Your task to perform on an android device: change your default location settings in chrome Image 0: 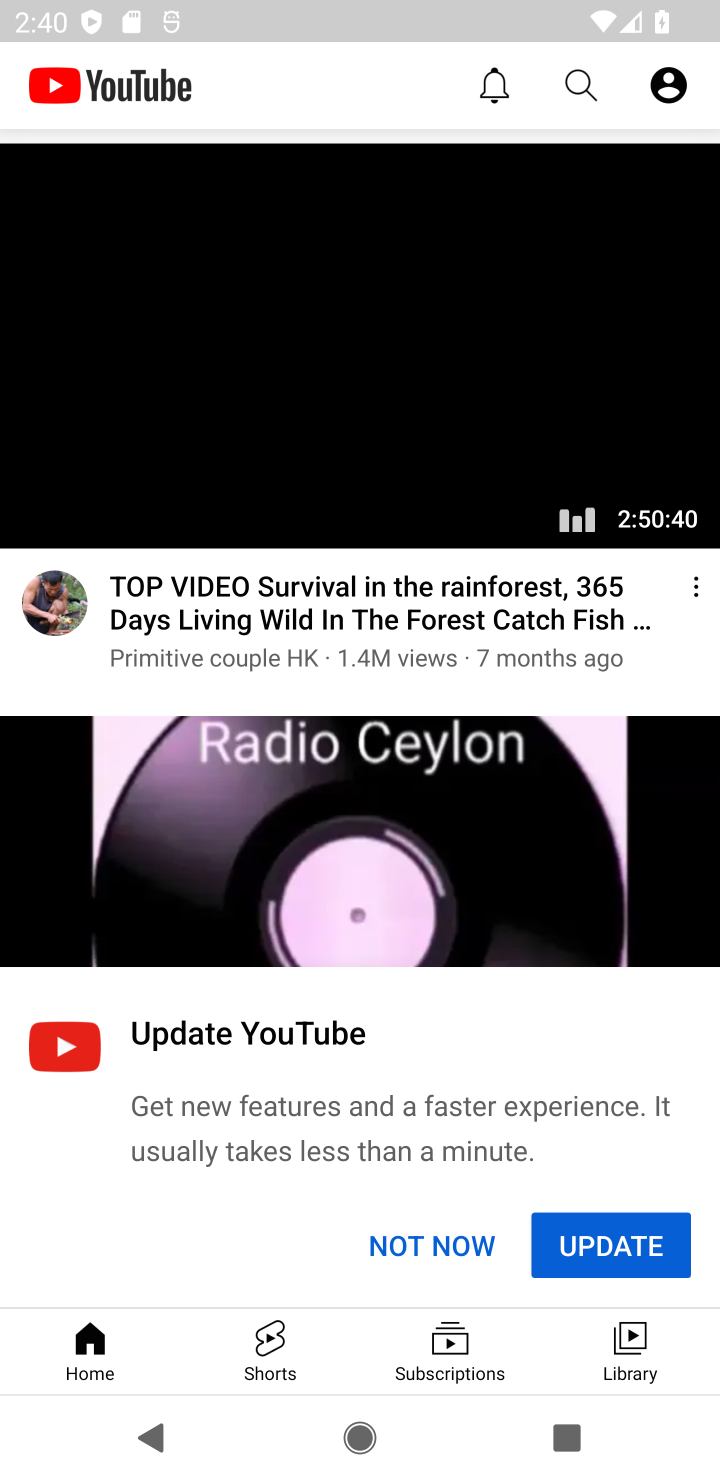
Step 0: press home button
Your task to perform on an android device: change your default location settings in chrome Image 1: 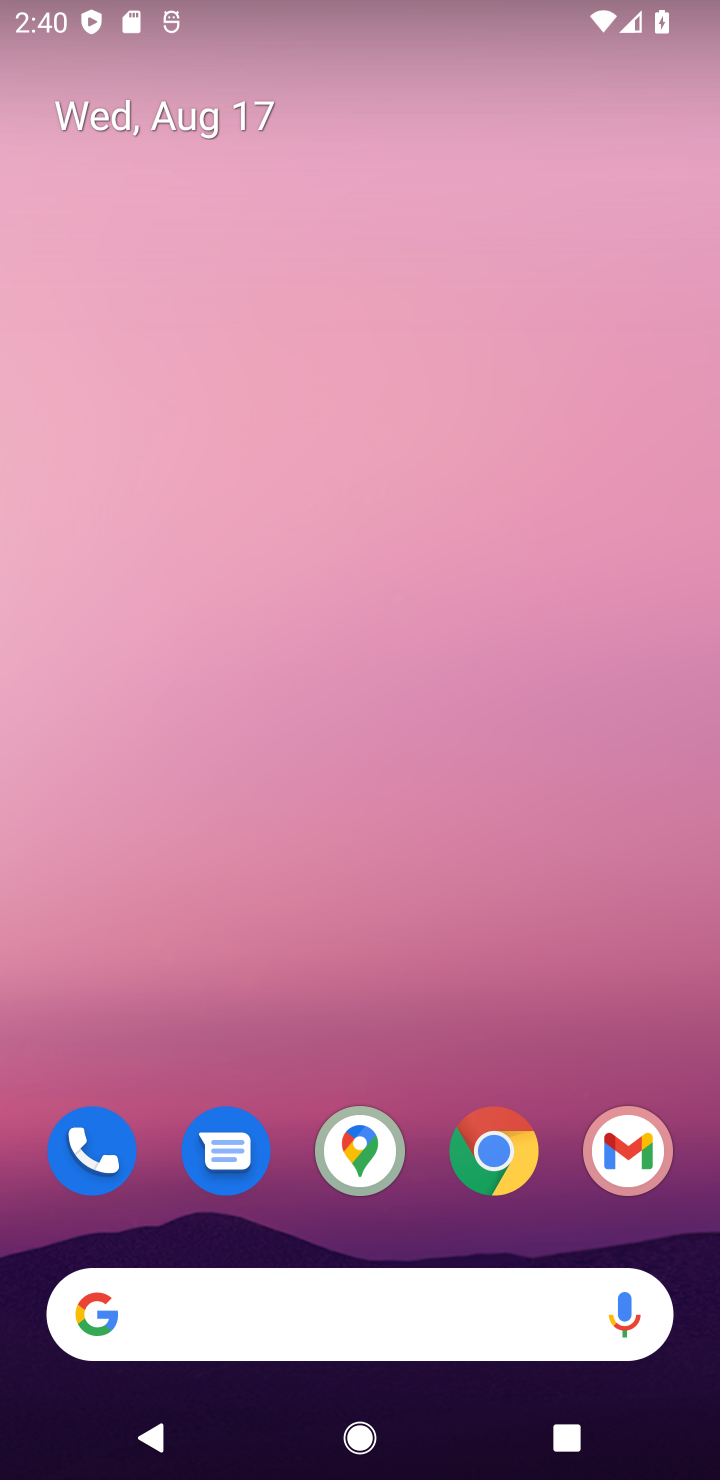
Step 1: drag from (384, 1150) to (408, 338)
Your task to perform on an android device: change your default location settings in chrome Image 2: 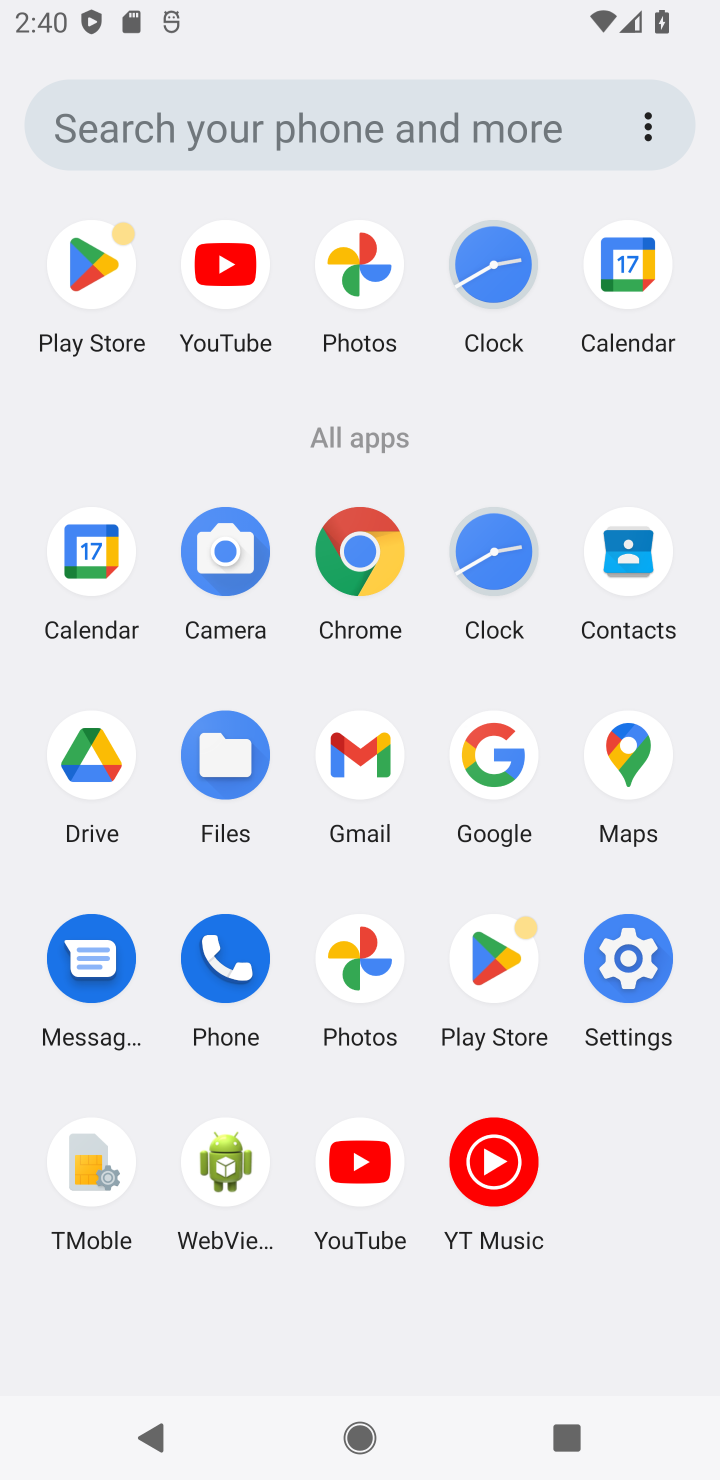
Step 2: click (345, 539)
Your task to perform on an android device: change your default location settings in chrome Image 3: 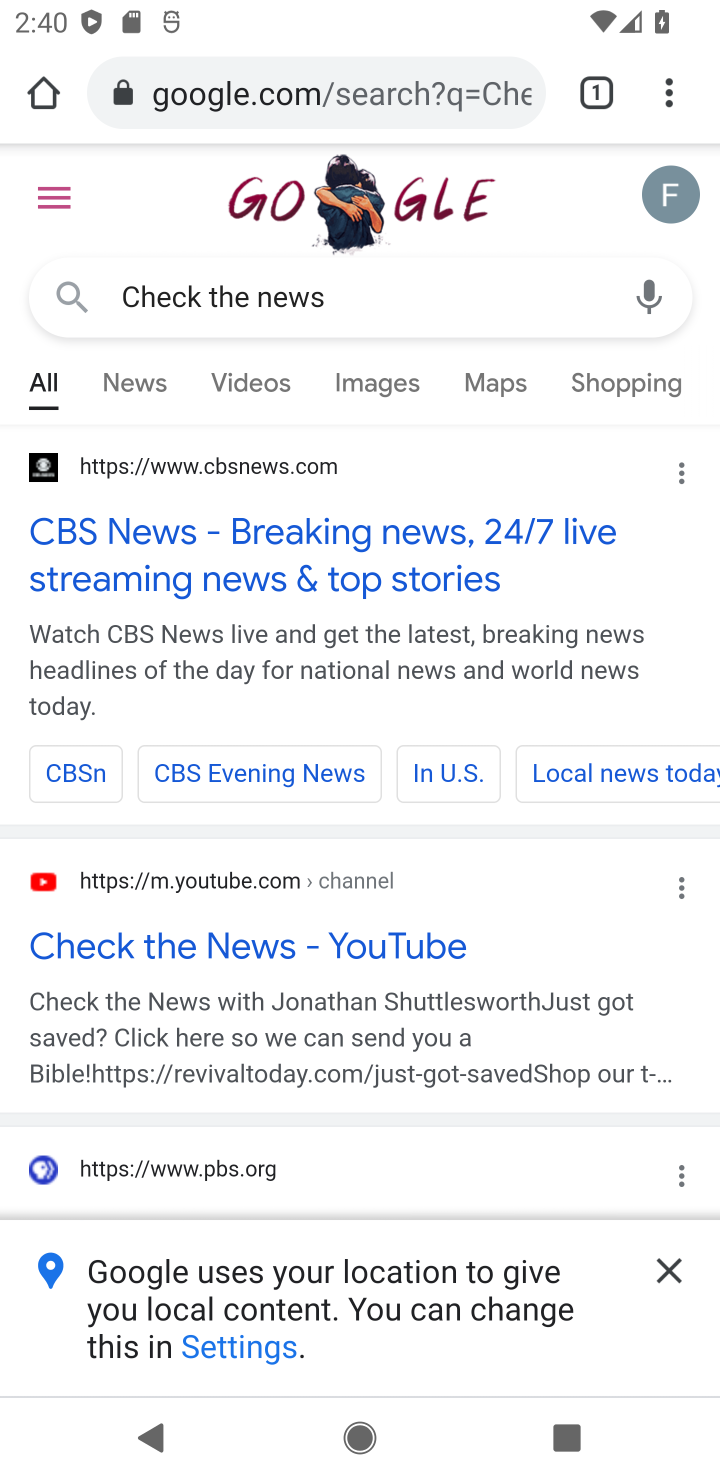
Step 3: click (689, 88)
Your task to perform on an android device: change your default location settings in chrome Image 4: 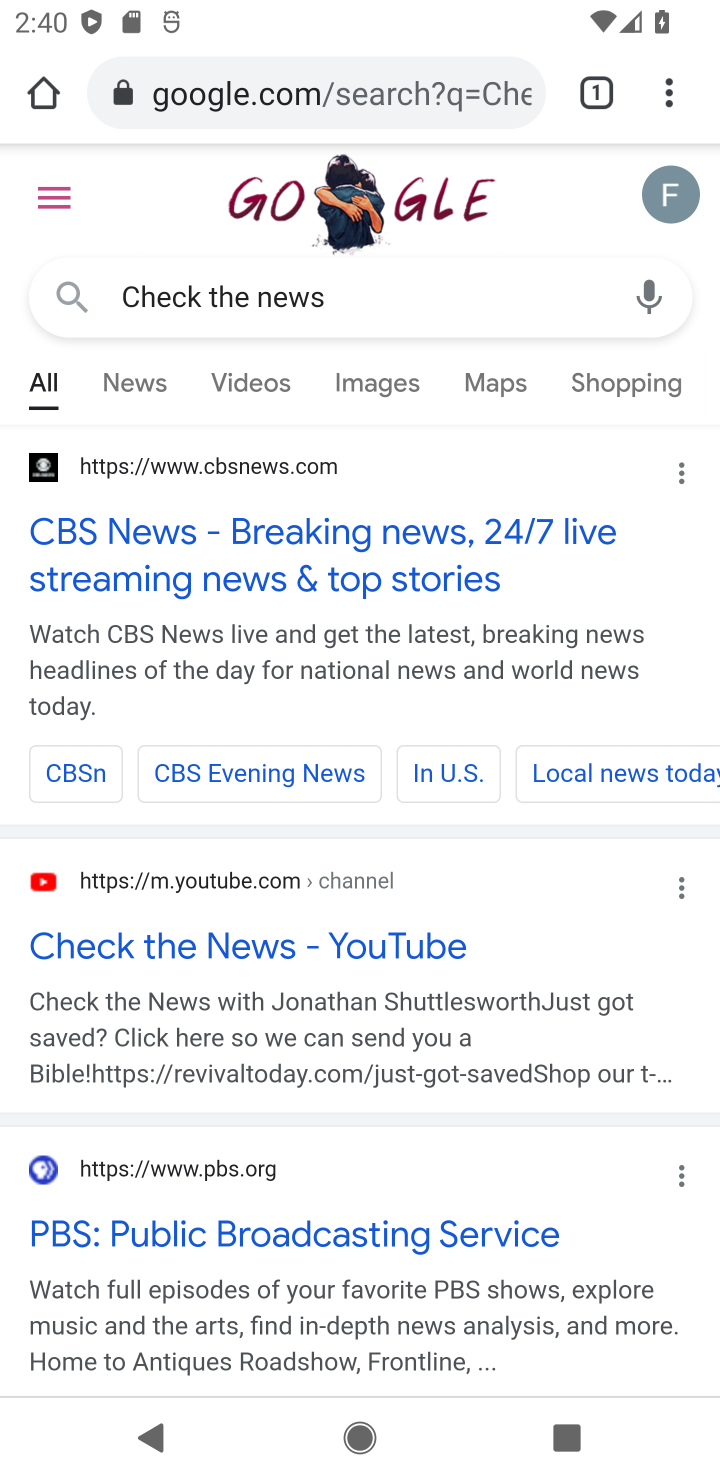
Step 4: click (657, 89)
Your task to perform on an android device: change your default location settings in chrome Image 5: 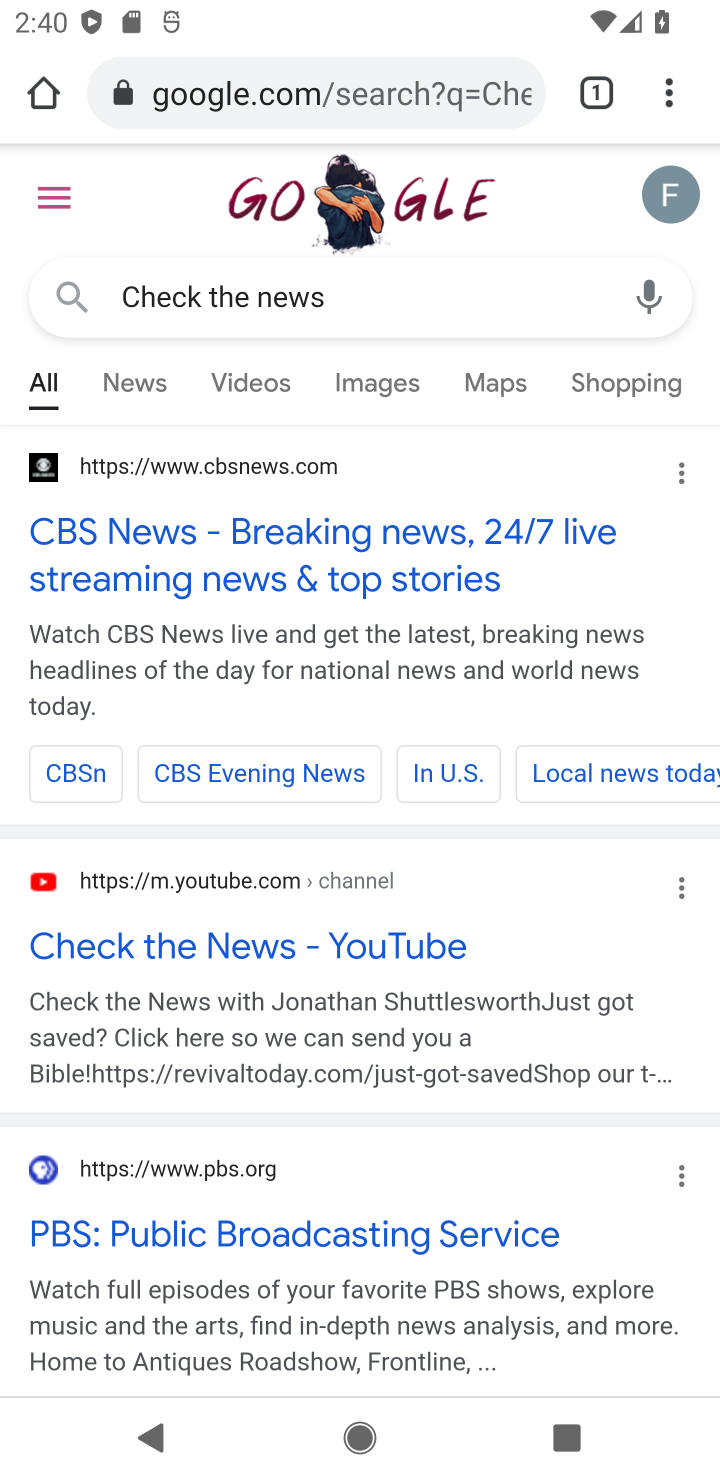
Step 5: click (657, 89)
Your task to perform on an android device: change your default location settings in chrome Image 6: 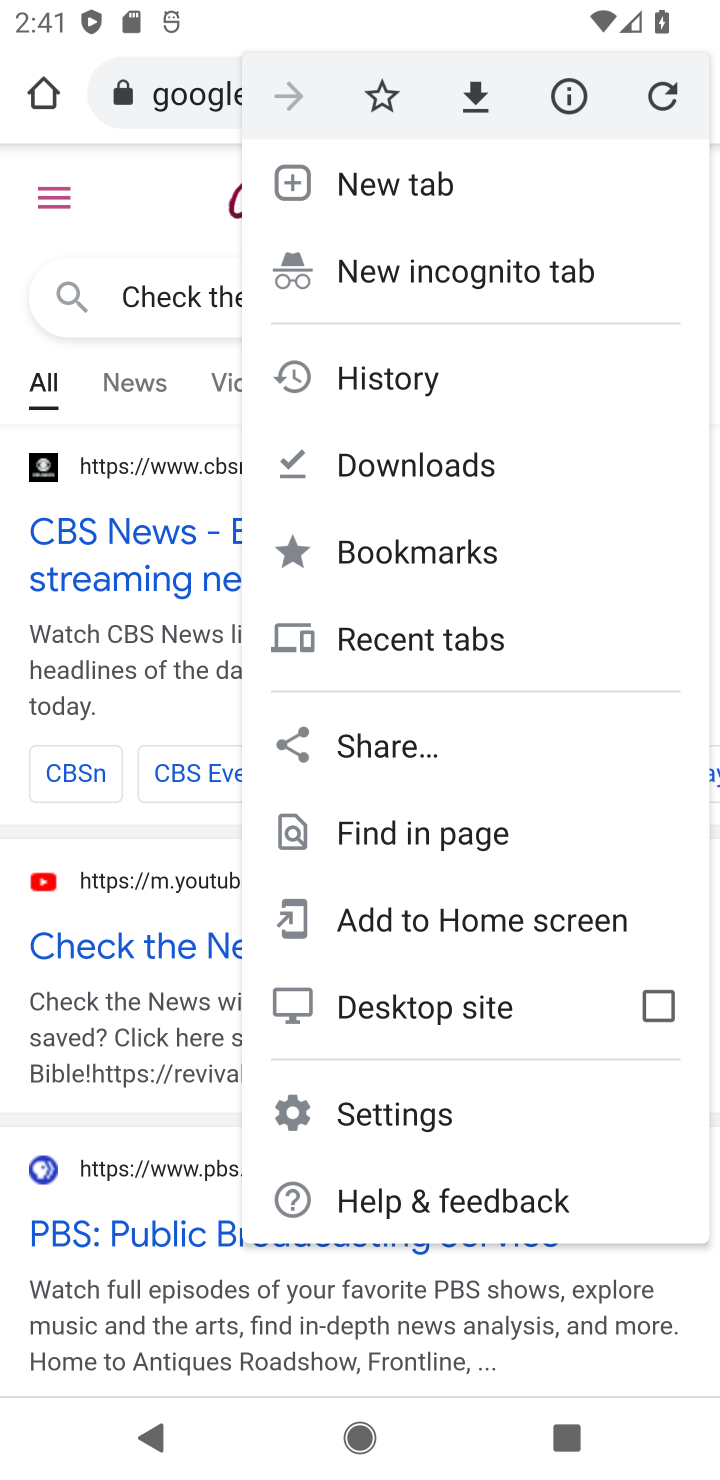
Step 6: click (419, 1104)
Your task to perform on an android device: change your default location settings in chrome Image 7: 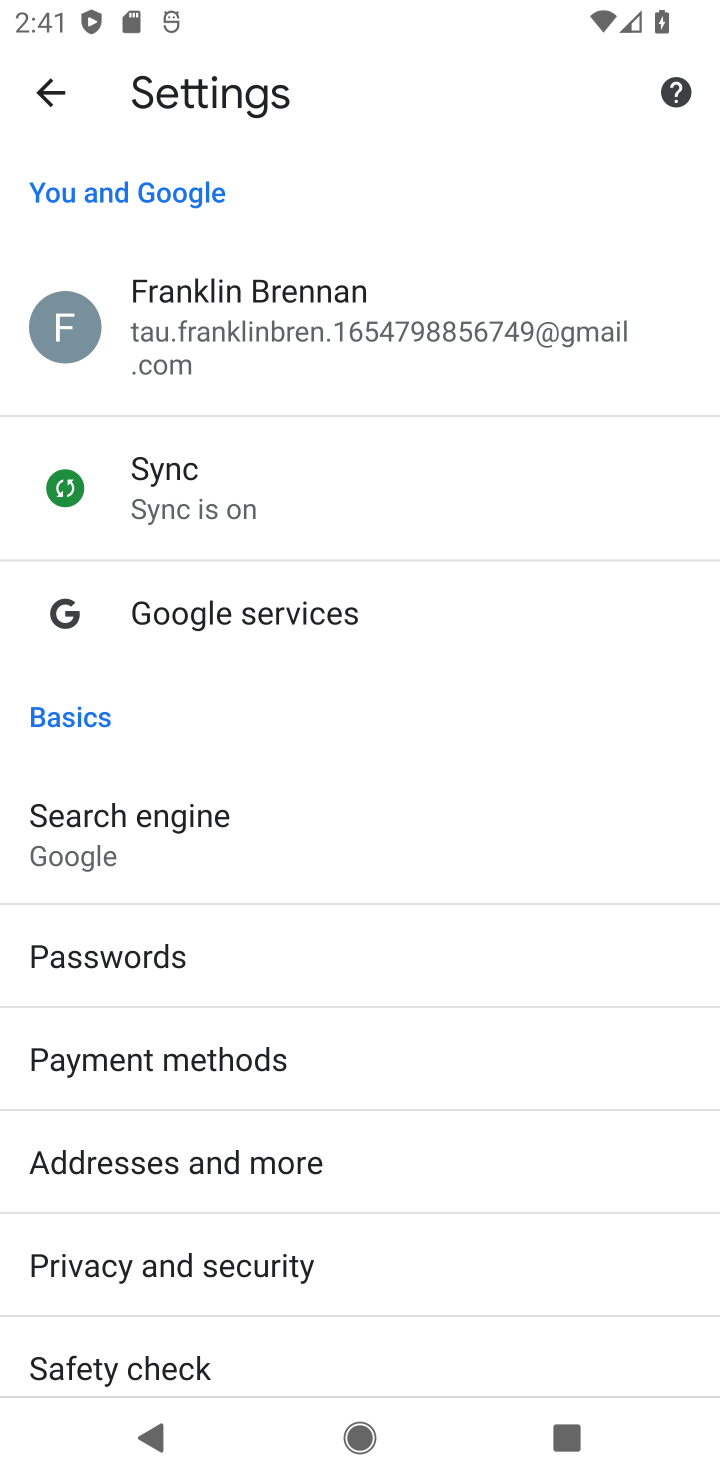
Step 7: drag from (254, 1316) to (398, 258)
Your task to perform on an android device: change your default location settings in chrome Image 8: 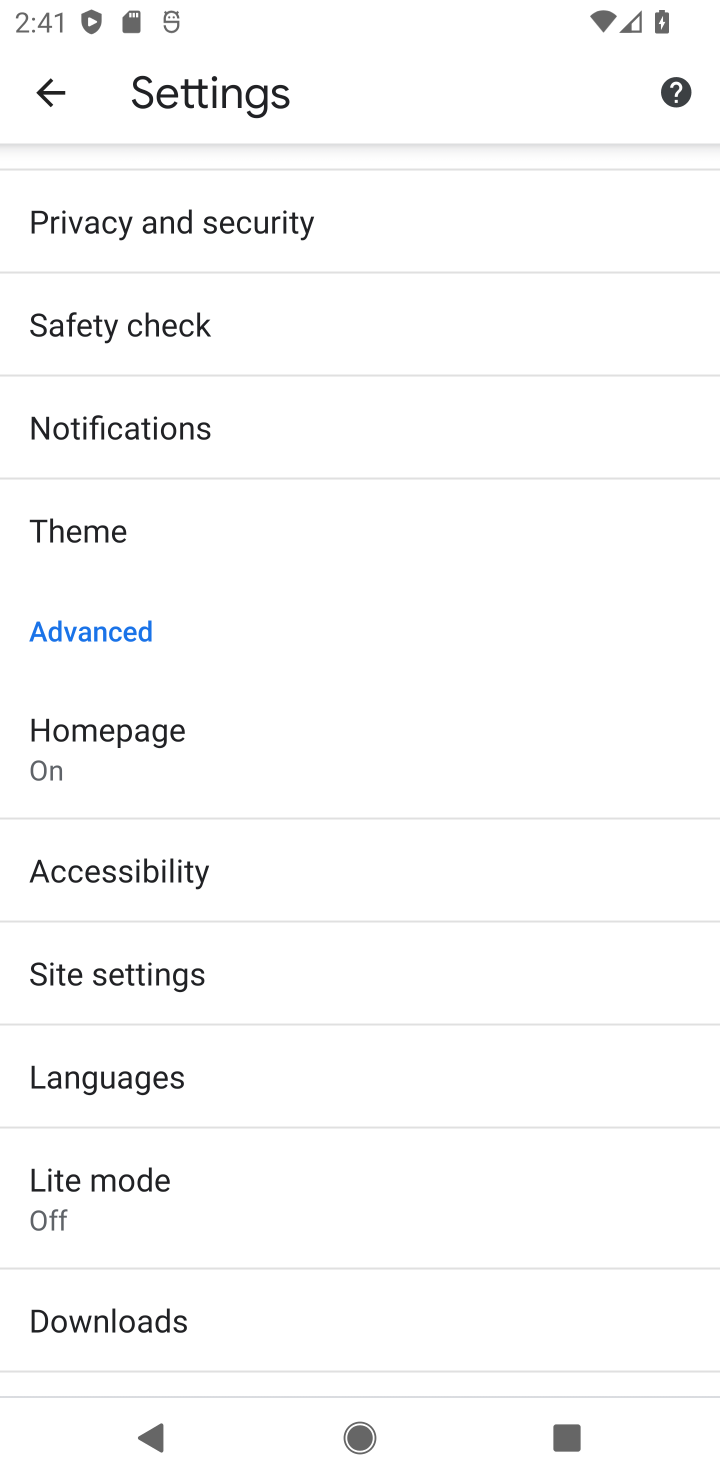
Step 8: click (186, 962)
Your task to perform on an android device: change your default location settings in chrome Image 9: 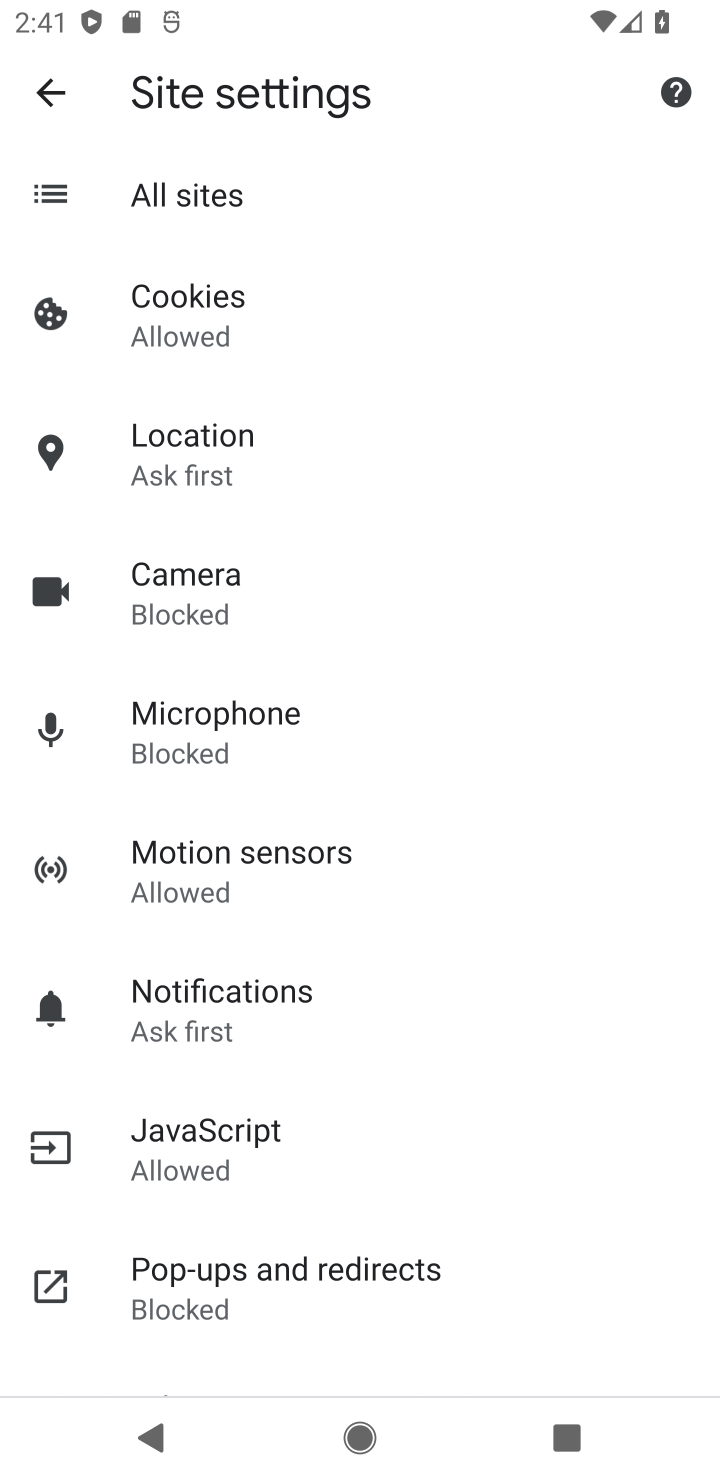
Step 9: click (175, 444)
Your task to perform on an android device: change your default location settings in chrome Image 10: 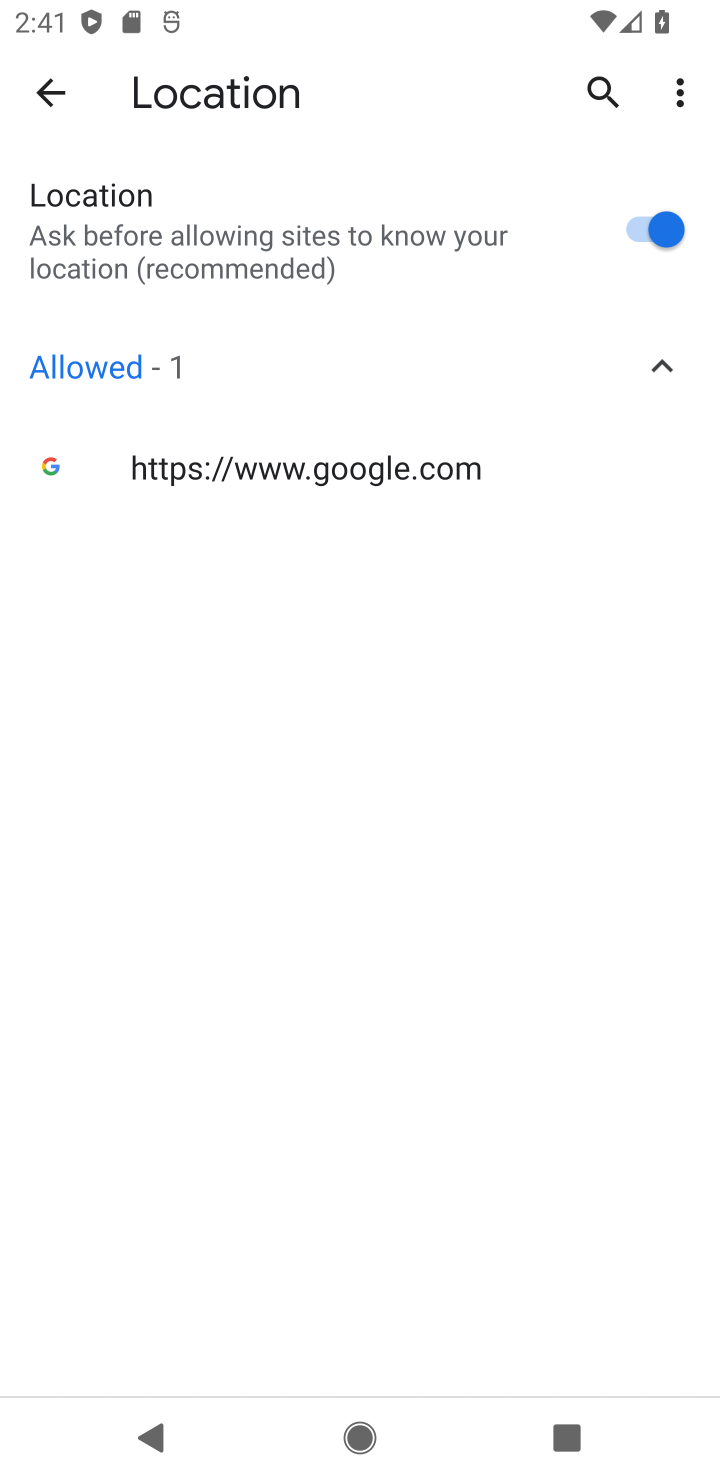
Step 10: click (645, 210)
Your task to perform on an android device: change your default location settings in chrome Image 11: 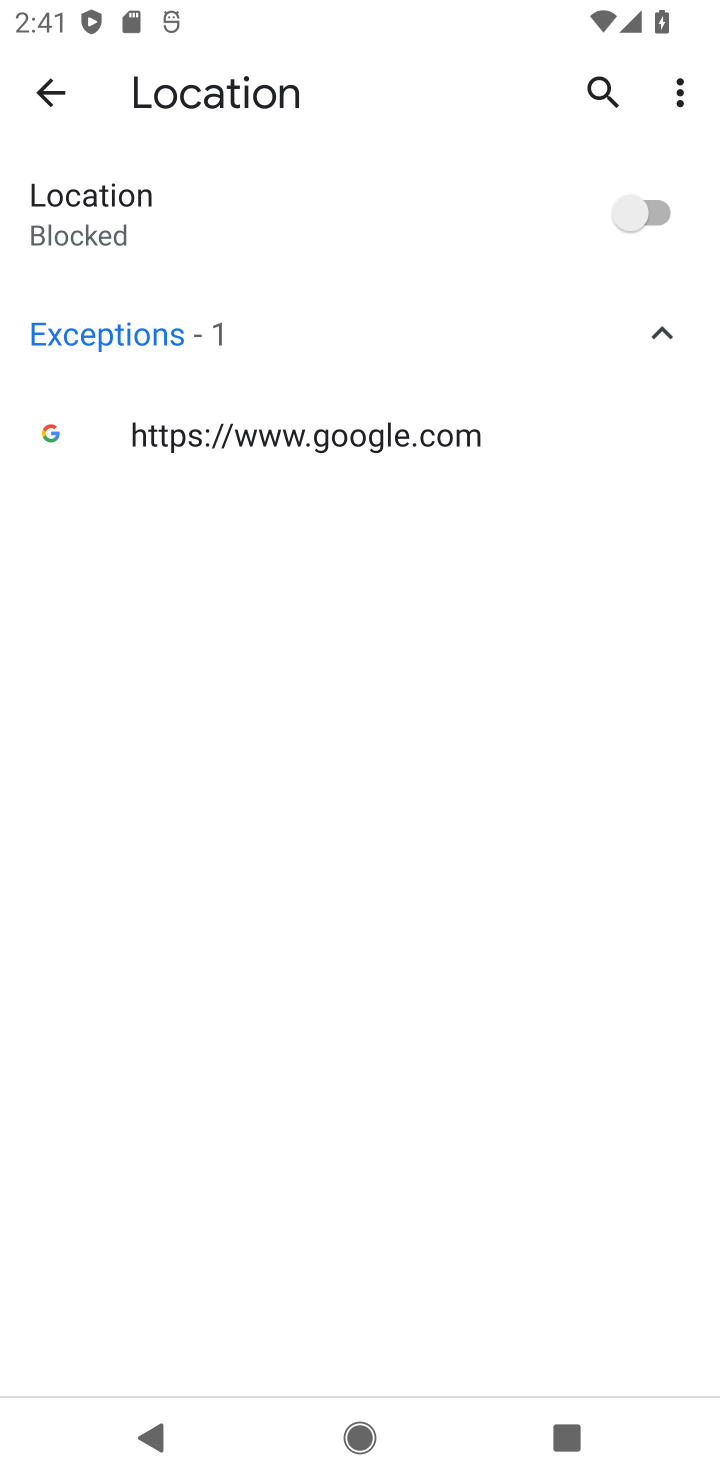
Step 11: task complete